Your task to perform on an android device: Open my contact list Image 0: 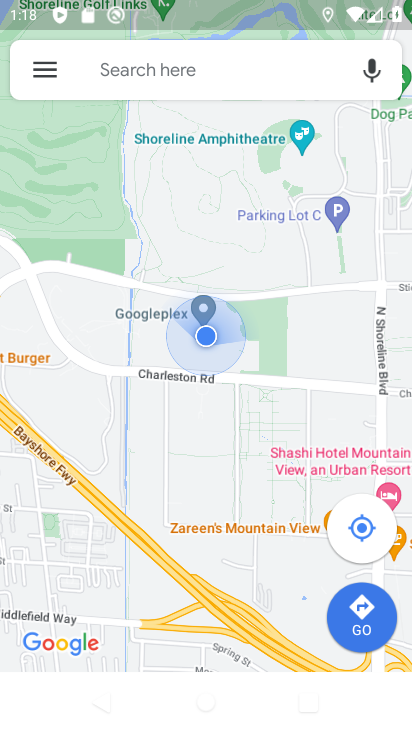
Step 0: press home button
Your task to perform on an android device: Open my contact list Image 1: 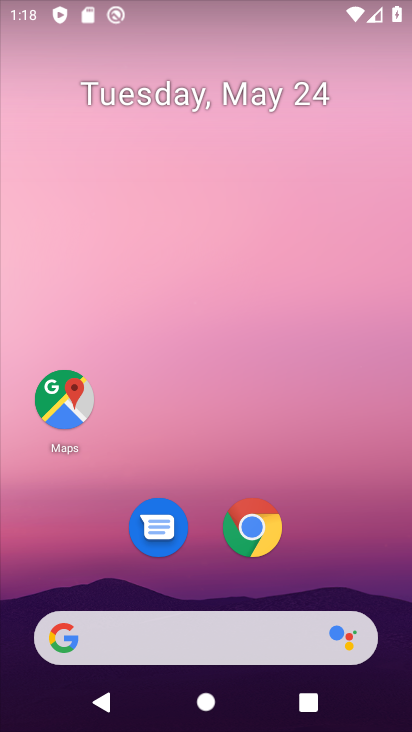
Step 1: drag from (254, 132) to (254, 7)
Your task to perform on an android device: Open my contact list Image 2: 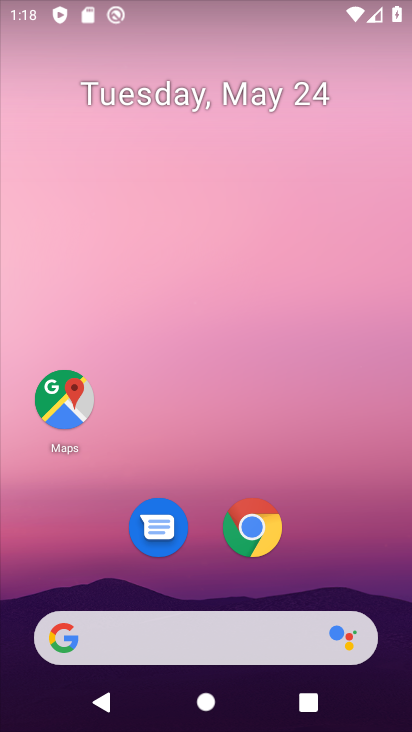
Step 2: click (229, 116)
Your task to perform on an android device: Open my contact list Image 3: 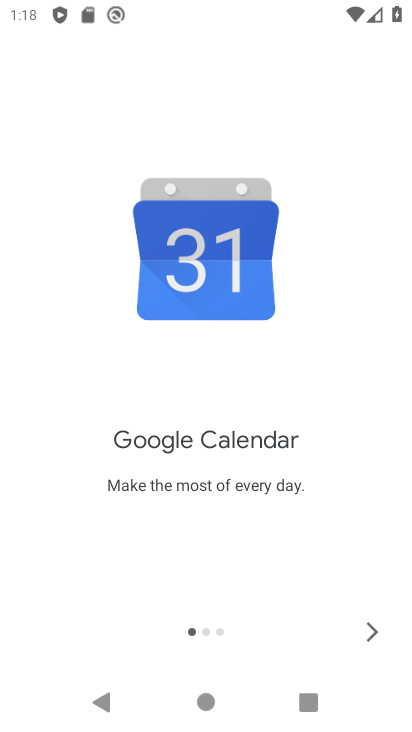
Step 3: press home button
Your task to perform on an android device: Open my contact list Image 4: 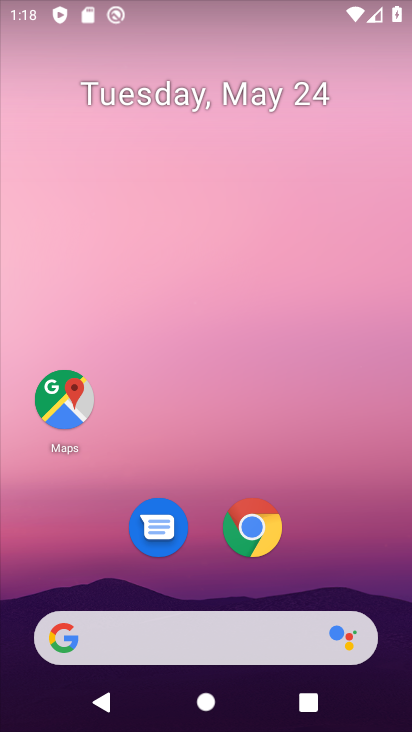
Step 4: drag from (224, 567) to (165, 13)
Your task to perform on an android device: Open my contact list Image 5: 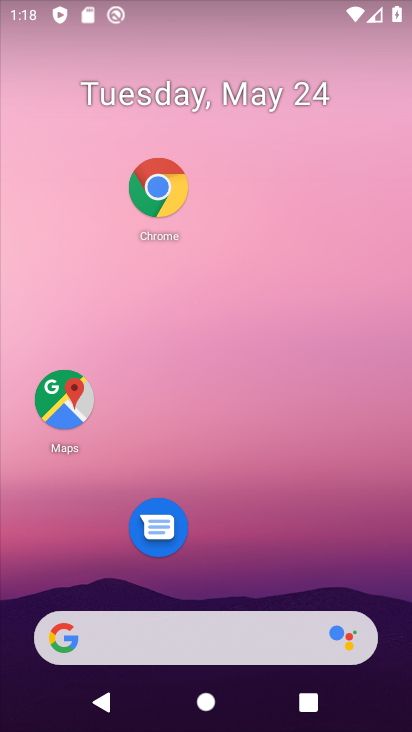
Step 5: drag from (225, 466) to (2, 344)
Your task to perform on an android device: Open my contact list Image 6: 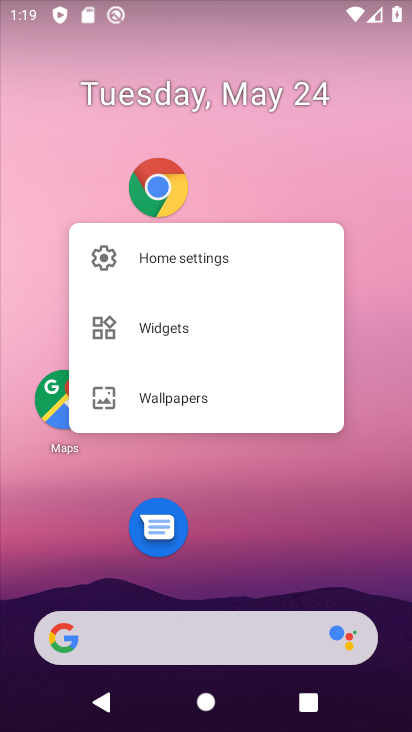
Step 6: click (243, 542)
Your task to perform on an android device: Open my contact list Image 7: 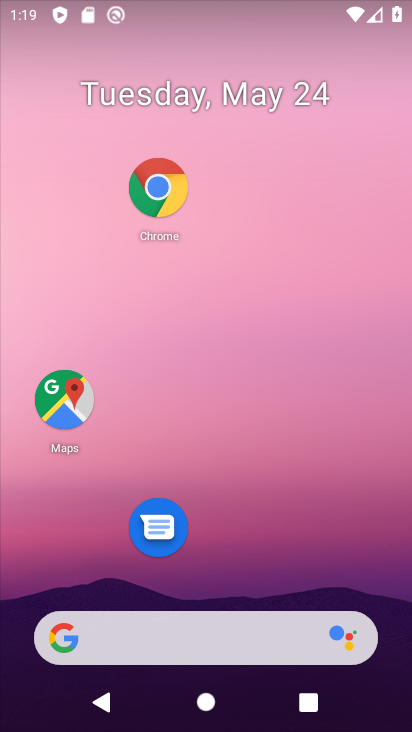
Step 7: drag from (227, 585) to (224, 11)
Your task to perform on an android device: Open my contact list Image 8: 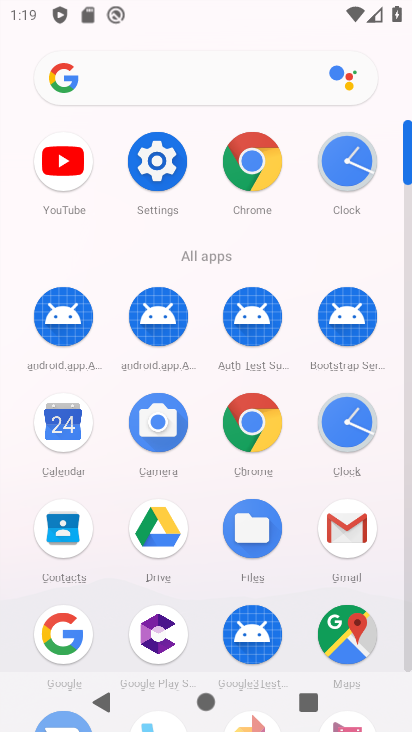
Step 8: click (58, 570)
Your task to perform on an android device: Open my contact list Image 9: 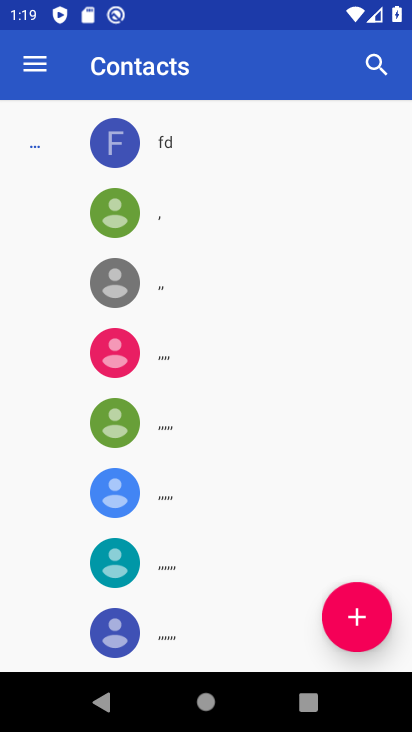
Step 9: task complete